Your task to perform on an android device: turn off sleep mode Image 0: 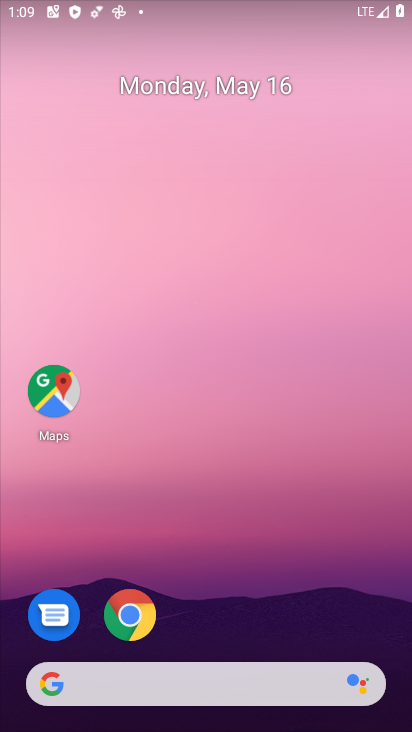
Step 0: drag from (242, 653) to (242, 32)
Your task to perform on an android device: turn off sleep mode Image 1: 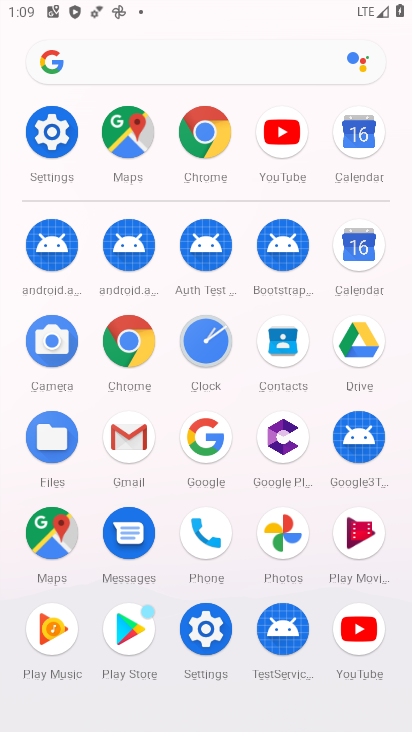
Step 1: click (43, 136)
Your task to perform on an android device: turn off sleep mode Image 2: 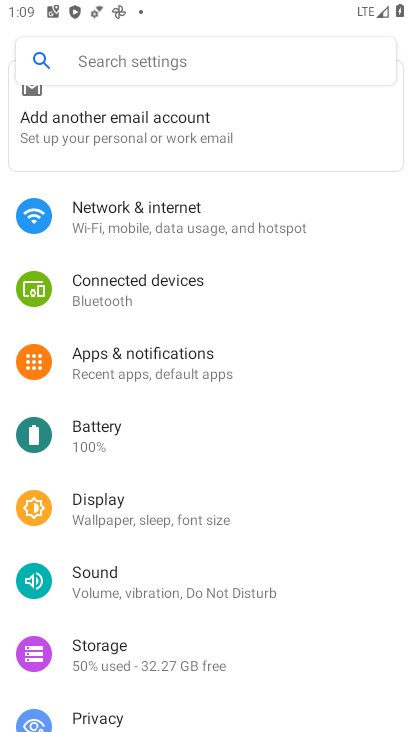
Step 2: click (221, 513)
Your task to perform on an android device: turn off sleep mode Image 3: 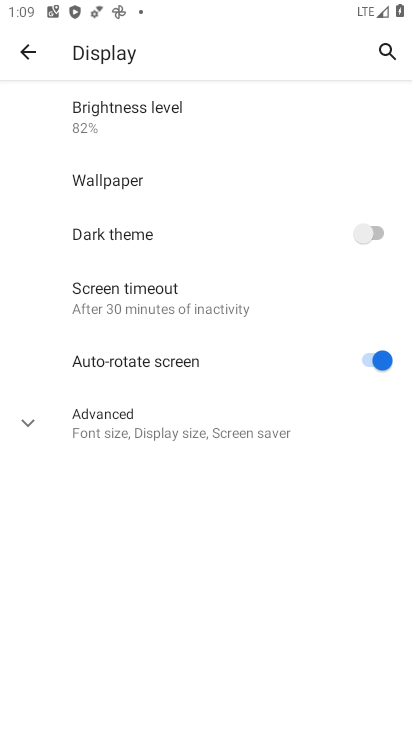
Step 3: task complete